Your task to perform on an android device: Open my contact list Image 0: 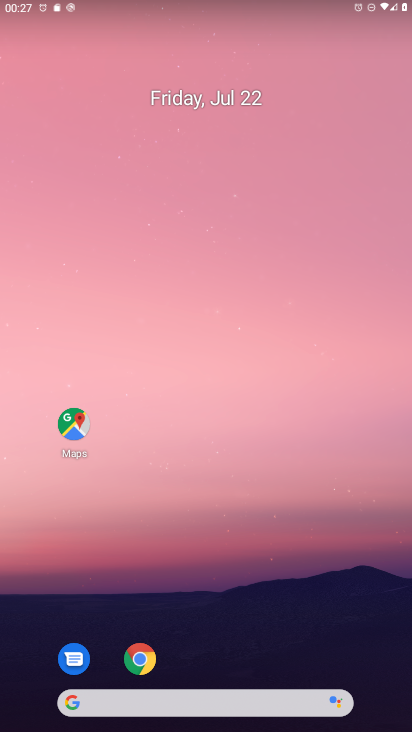
Step 0: drag from (208, 700) to (233, 128)
Your task to perform on an android device: Open my contact list Image 1: 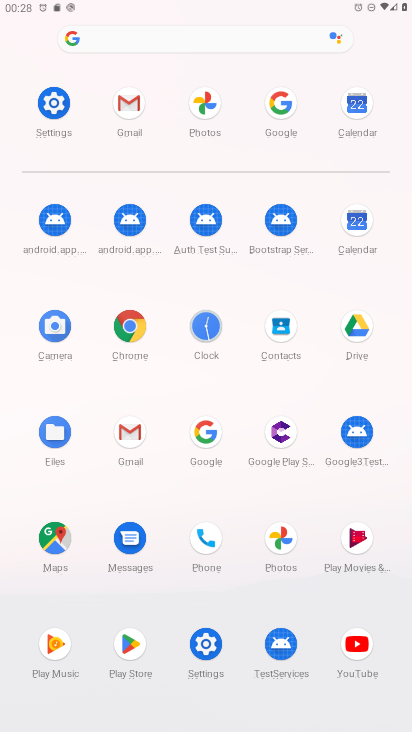
Step 1: click (278, 329)
Your task to perform on an android device: Open my contact list Image 2: 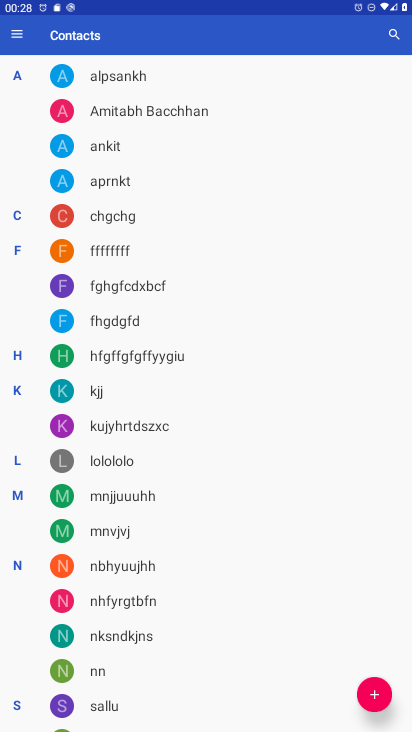
Step 2: task complete